Your task to perform on an android device: Go to Android settings Image 0: 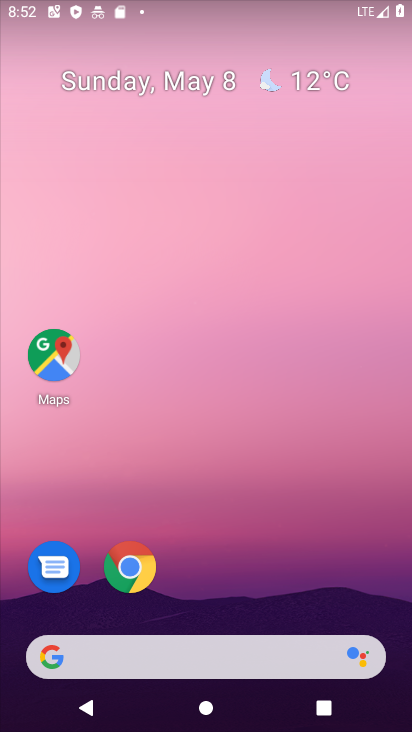
Step 0: drag from (297, 654) to (184, 46)
Your task to perform on an android device: Go to Android settings Image 1: 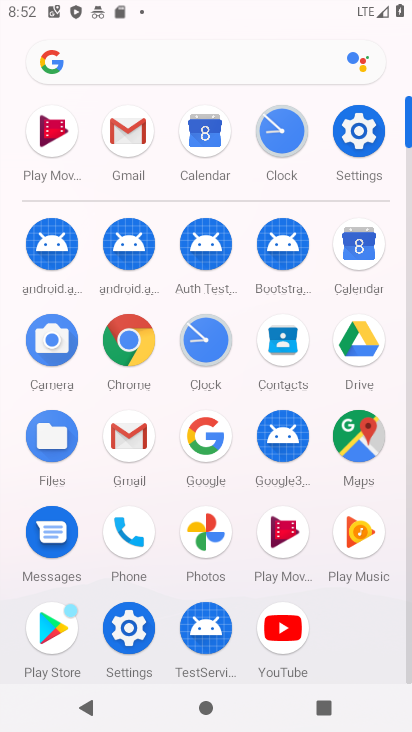
Step 1: click (365, 138)
Your task to perform on an android device: Go to Android settings Image 2: 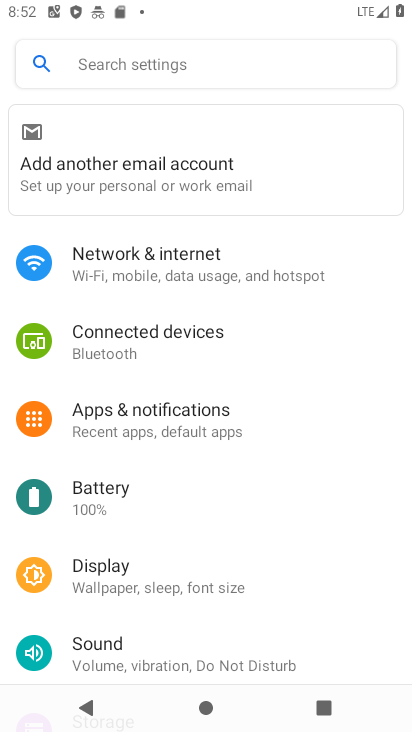
Step 2: drag from (243, 537) to (347, 9)
Your task to perform on an android device: Go to Android settings Image 3: 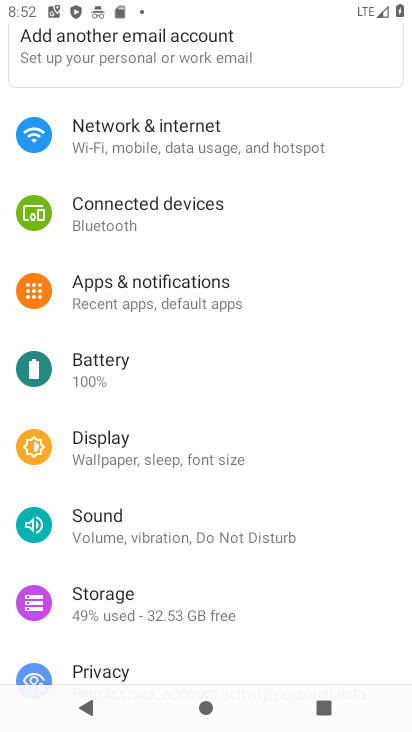
Step 3: drag from (250, 562) to (313, 121)
Your task to perform on an android device: Go to Android settings Image 4: 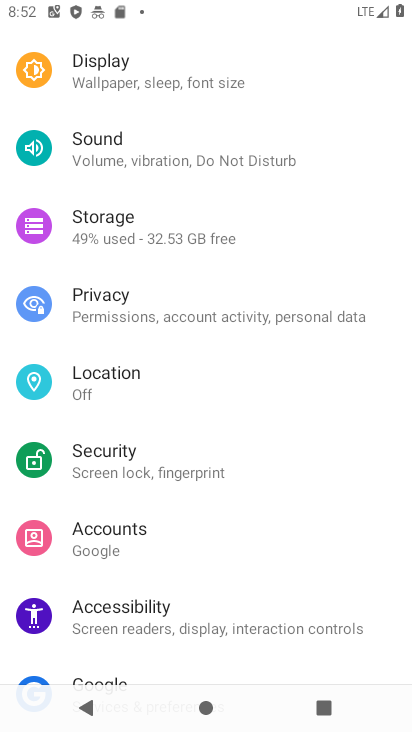
Step 4: drag from (131, 616) to (162, 157)
Your task to perform on an android device: Go to Android settings Image 5: 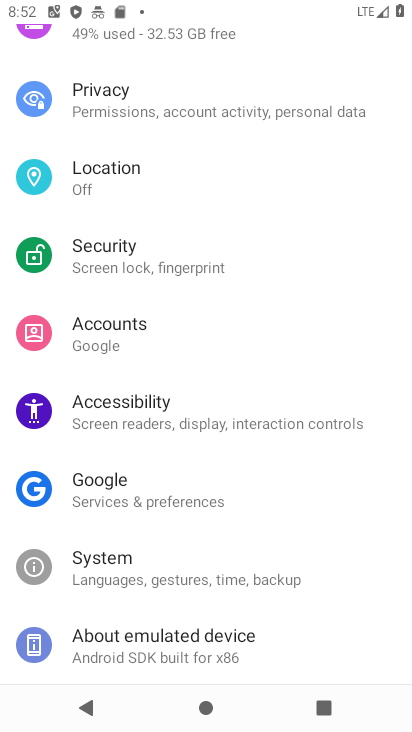
Step 5: click (204, 648)
Your task to perform on an android device: Go to Android settings Image 6: 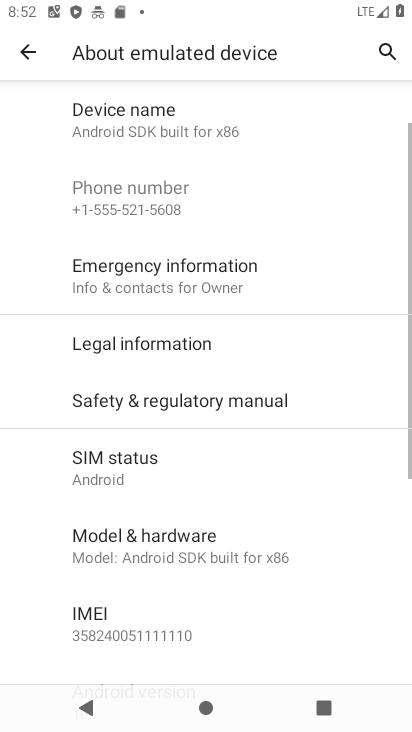
Step 6: task complete